Your task to perform on an android device: turn on wifi Image 0: 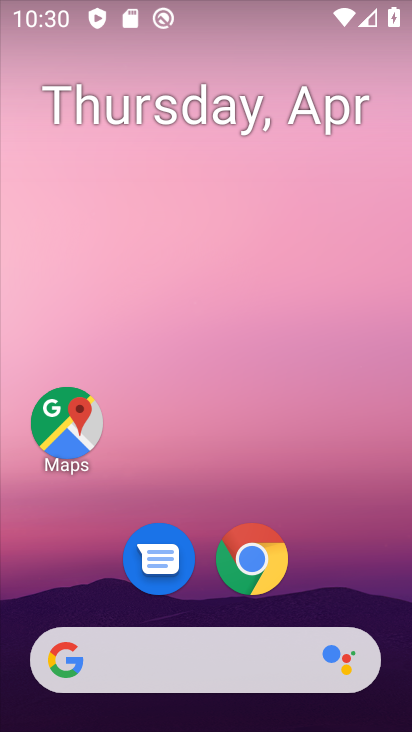
Step 0: drag from (278, 696) to (178, 230)
Your task to perform on an android device: turn on wifi Image 1: 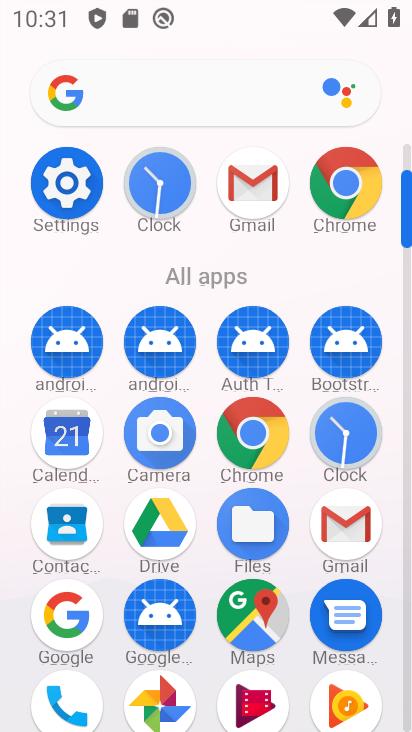
Step 1: click (70, 193)
Your task to perform on an android device: turn on wifi Image 2: 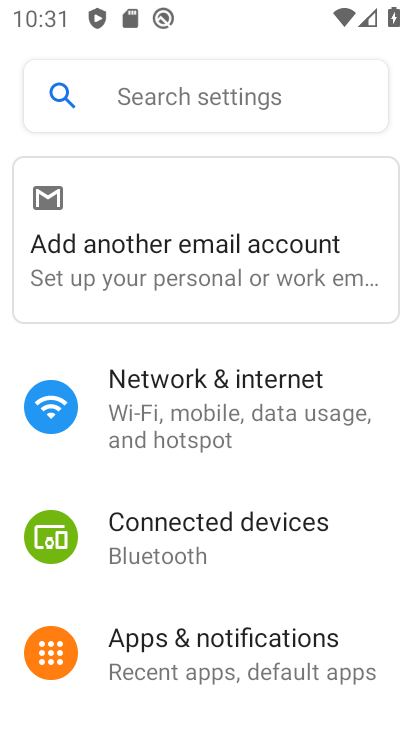
Step 2: click (176, 432)
Your task to perform on an android device: turn on wifi Image 3: 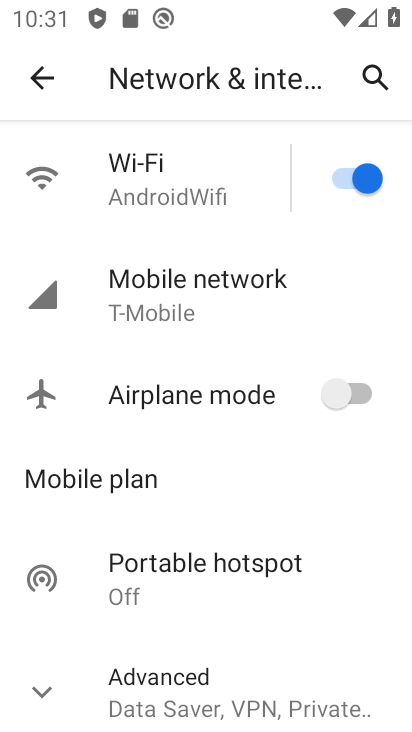
Step 3: click (179, 173)
Your task to perform on an android device: turn on wifi Image 4: 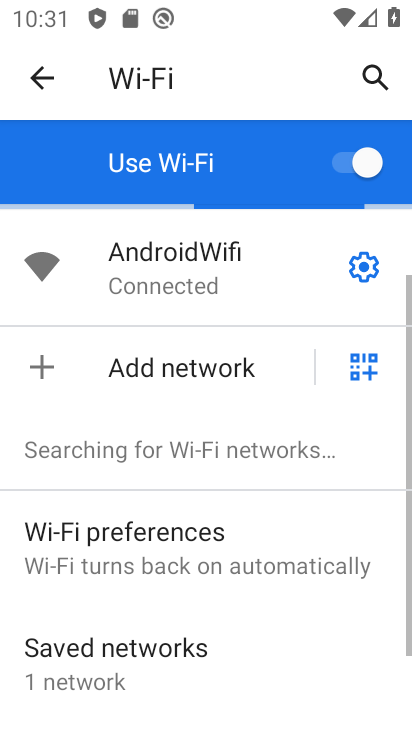
Step 4: click (332, 175)
Your task to perform on an android device: turn on wifi Image 5: 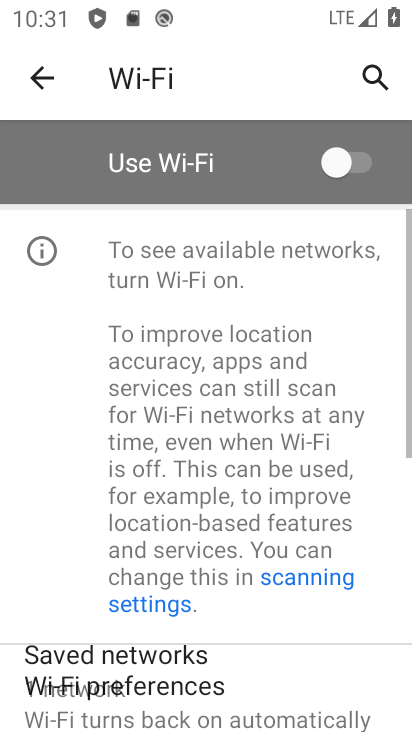
Step 5: click (332, 174)
Your task to perform on an android device: turn on wifi Image 6: 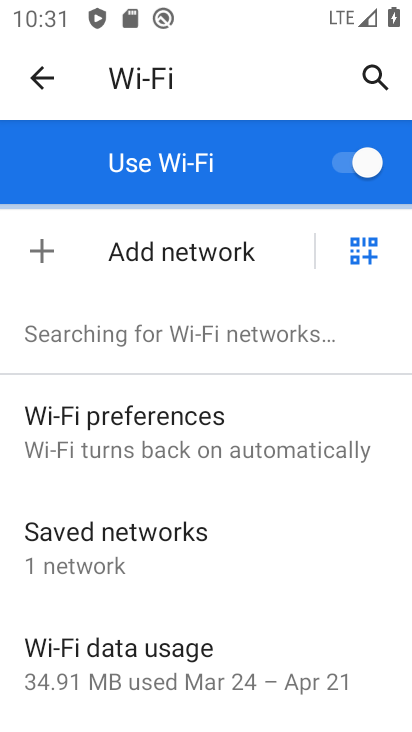
Step 6: task complete